Your task to perform on an android device: Turn on the flashlight Image 0: 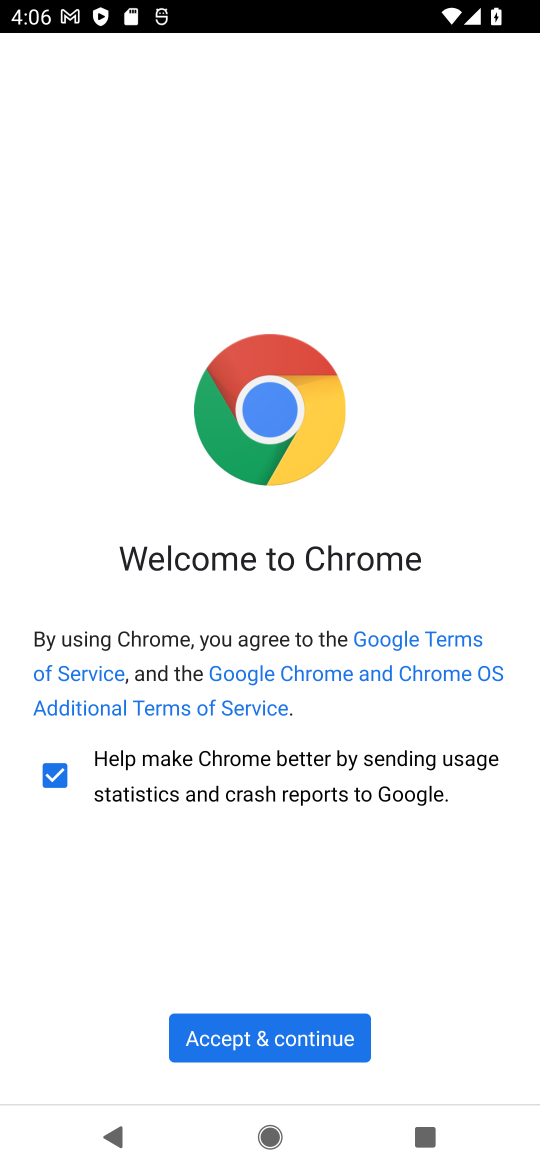
Step 0: press home button
Your task to perform on an android device: Turn on the flashlight Image 1: 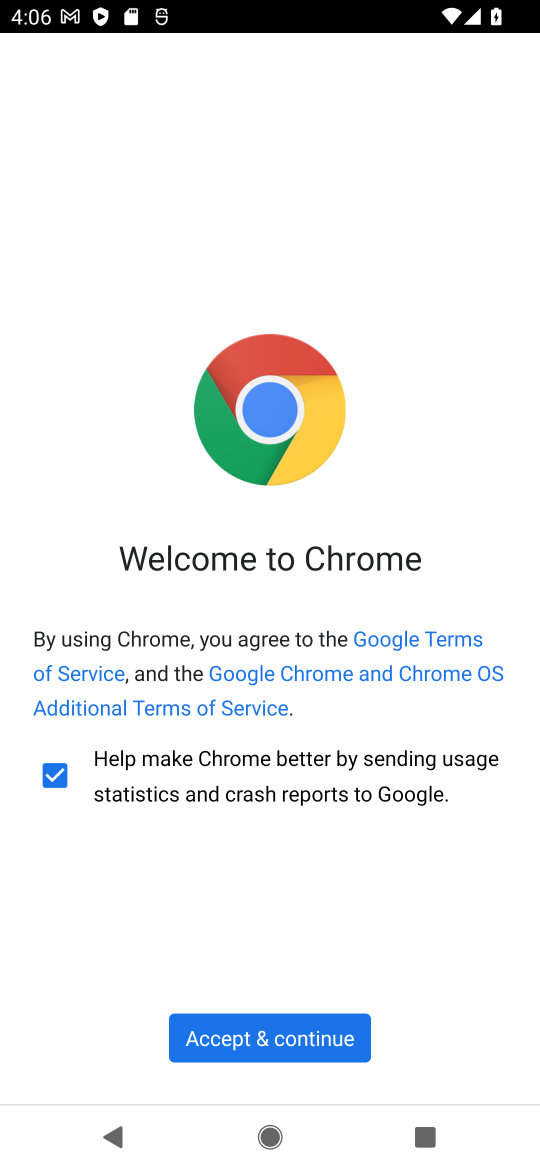
Step 1: press home button
Your task to perform on an android device: Turn on the flashlight Image 2: 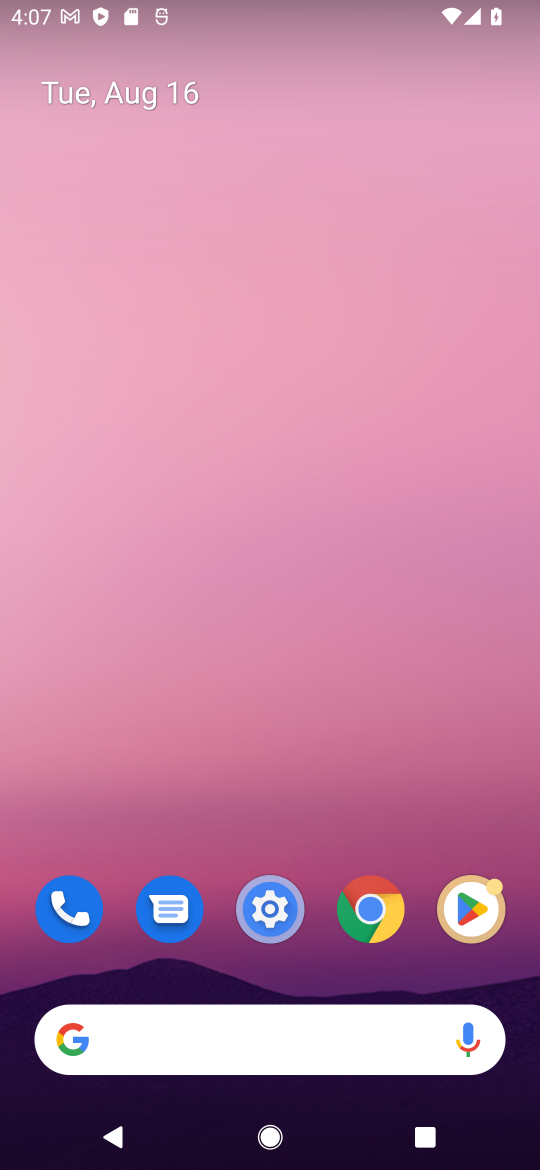
Step 2: drag from (242, 727) to (145, 180)
Your task to perform on an android device: Turn on the flashlight Image 3: 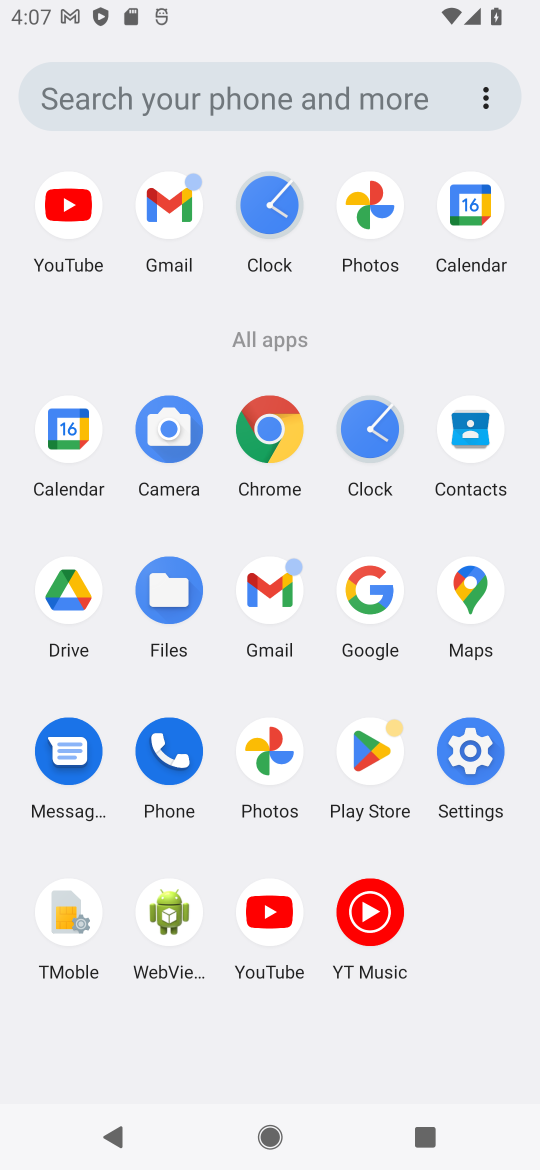
Step 3: click (479, 748)
Your task to perform on an android device: Turn on the flashlight Image 4: 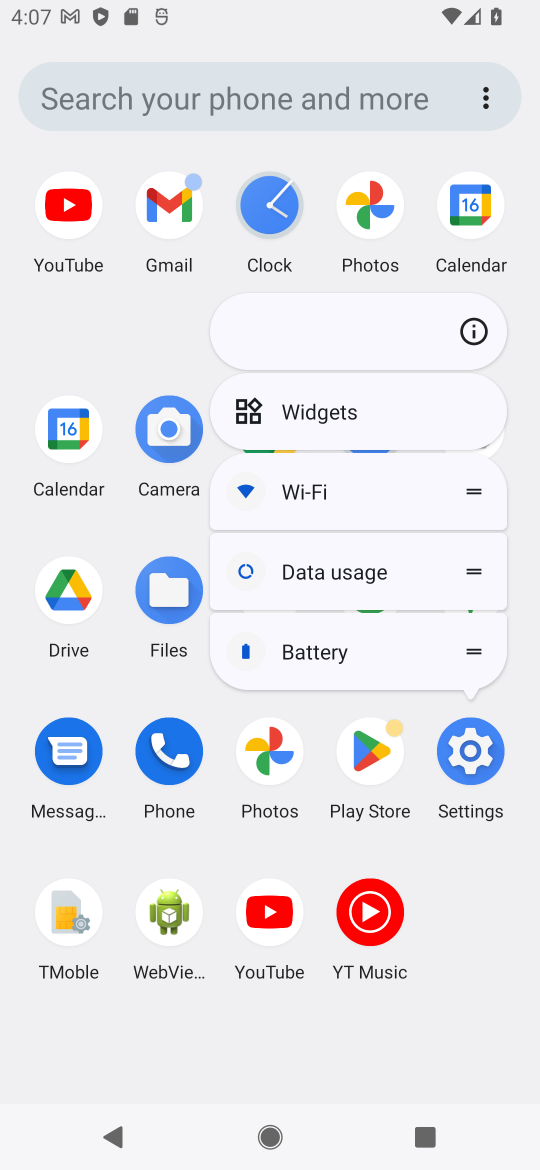
Step 4: click (452, 745)
Your task to perform on an android device: Turn on the flashlight Image 5: 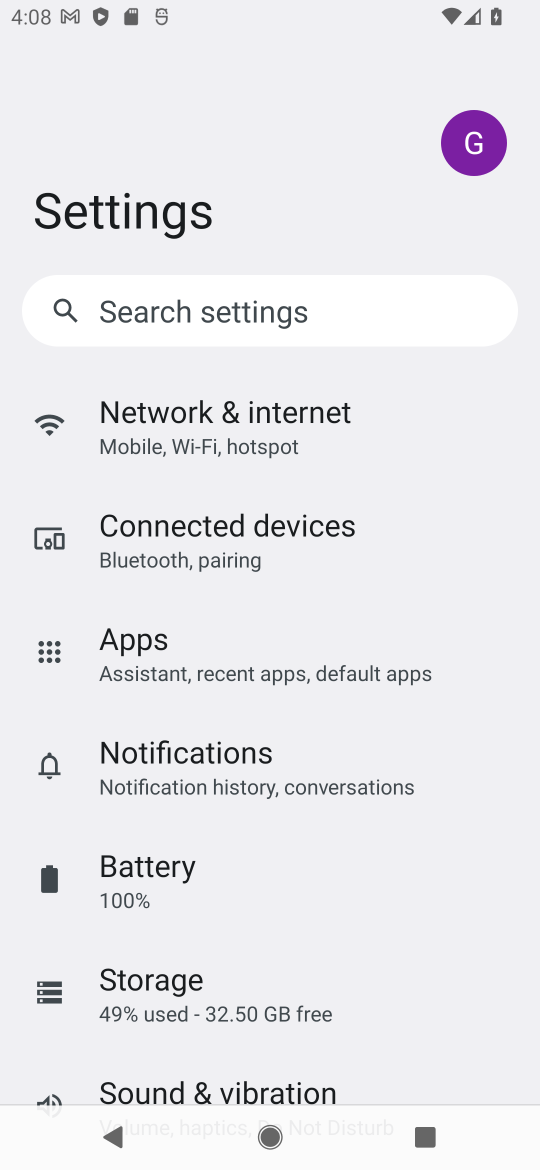
Step 5: drag from (303, 953) to (268, 431)
Your task to perform on an android device: Turn on the flashlight Image 6: 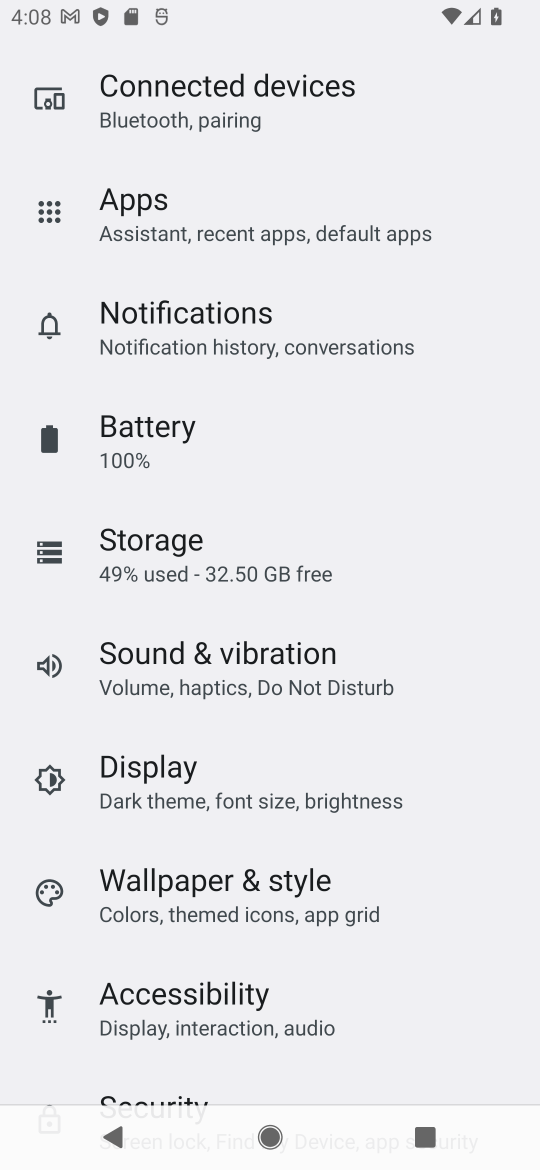
Step 6: click (159, 785)
Your task to perform on an android device: Turn on the flashlight Image 7: 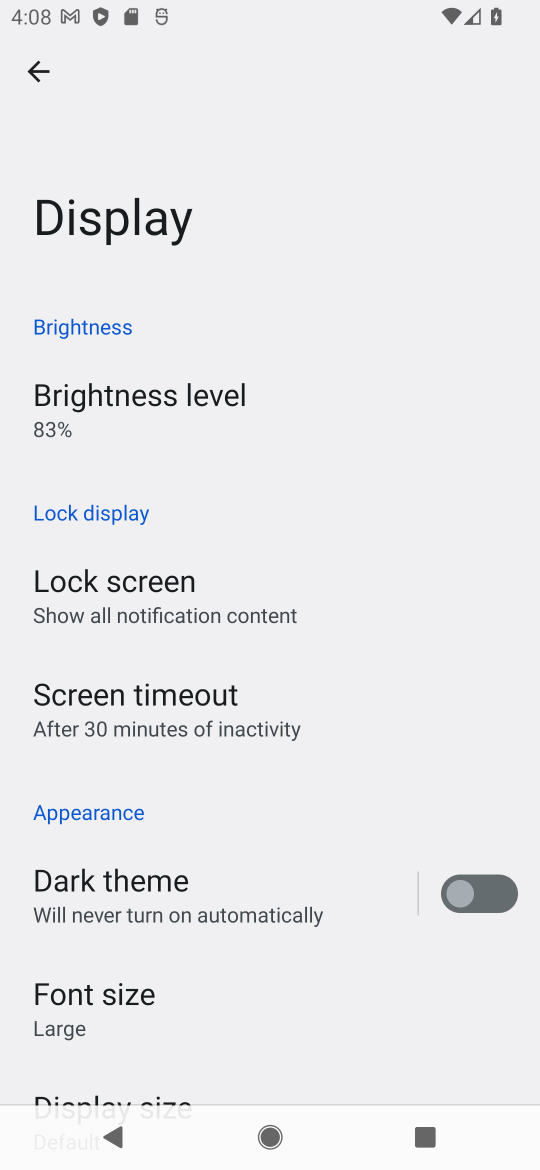
Step 7: task complete